Your task to perform on an android device: toggle notifications settings in the gmail app Image 0: 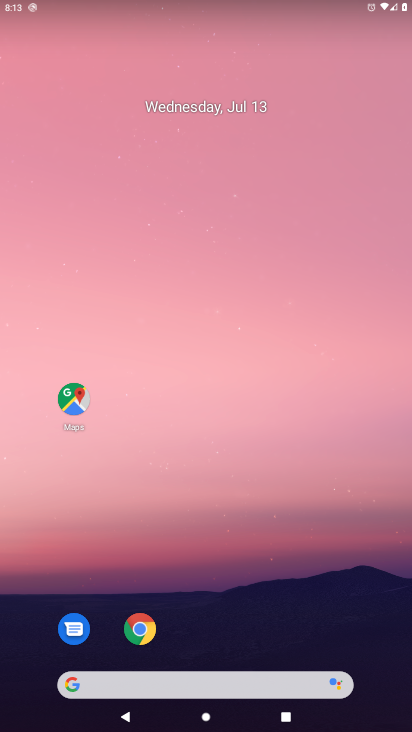
Step 0: drag from (94, 534) to (178, 2)
Your task to perform on an android device: toggle notifications settings in the gmail app Image 1: 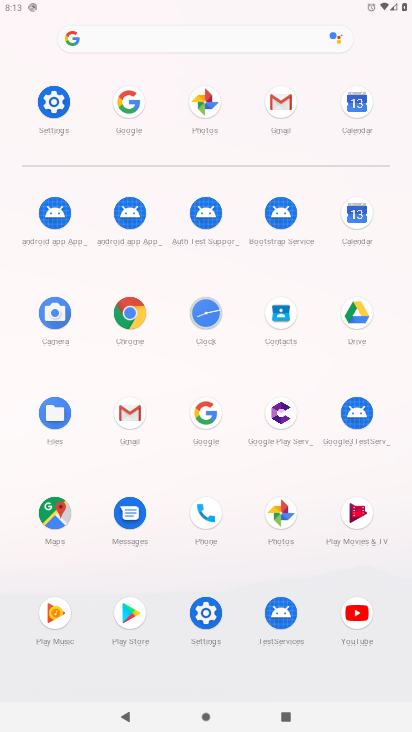
Step 1: click (130, 423)
Your task to perform on an android device: toggle notifications settings in the gmail app Image 2: 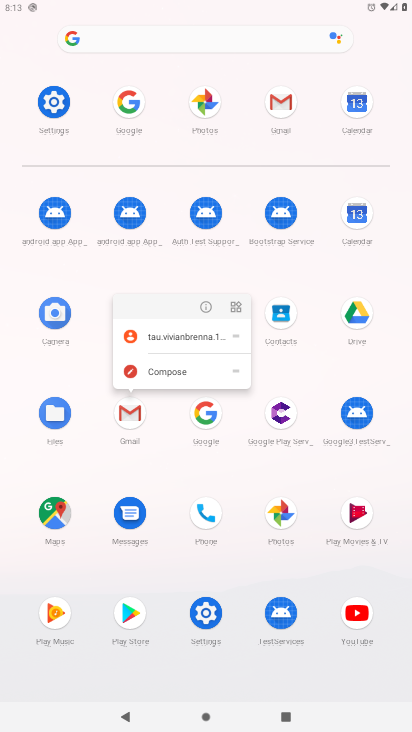
Step 2: click (119, 412)
Your task to perform on an android device: toggle notifications settings in the gmail app Image 3: 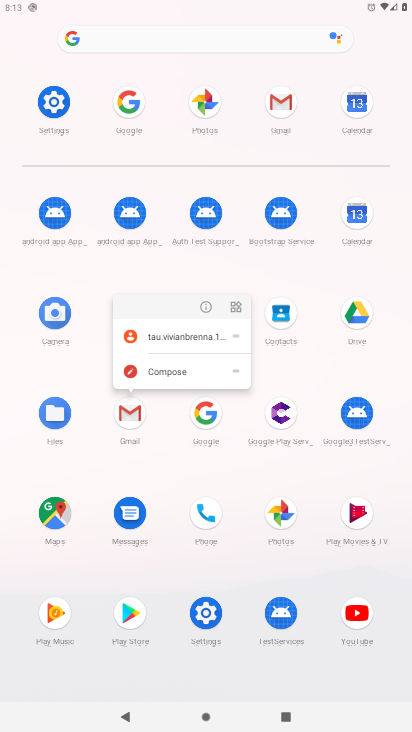
Step 3: click (119, 424)
Your task to perform on an android device: toggle notifications settings in the gmail app Image 4: 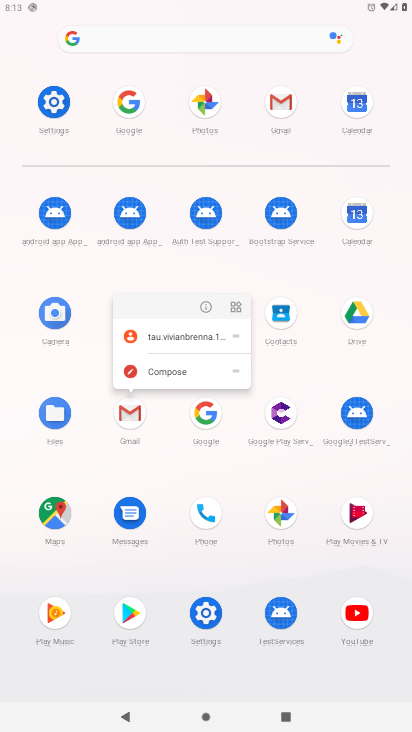
Step 4: click (145, 405)
Your task to perform on an android device: toggle notifications settings in the gmail app Image 5: 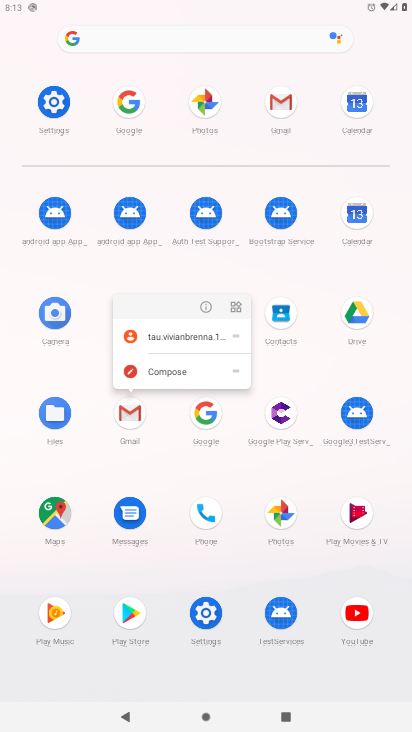
Step 5: task complete